Your task to perform on an android device: Open privacy settings Image 0: 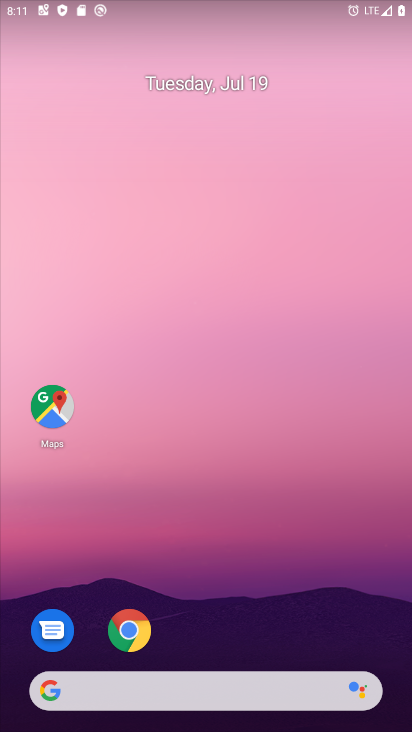
Step 0: drag from (271, 585) to (241, 65)
Your task to perform on an android device: Open privacy settings Image 1: 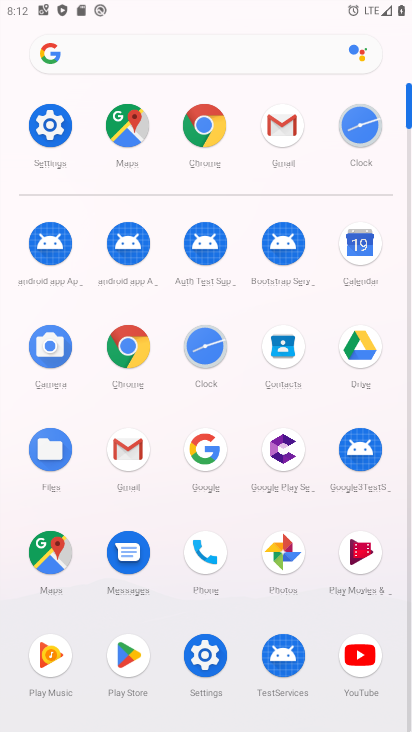
Step 1: click (46, 133)
Your task to perform on an android device: Open privacy settings Image 2: 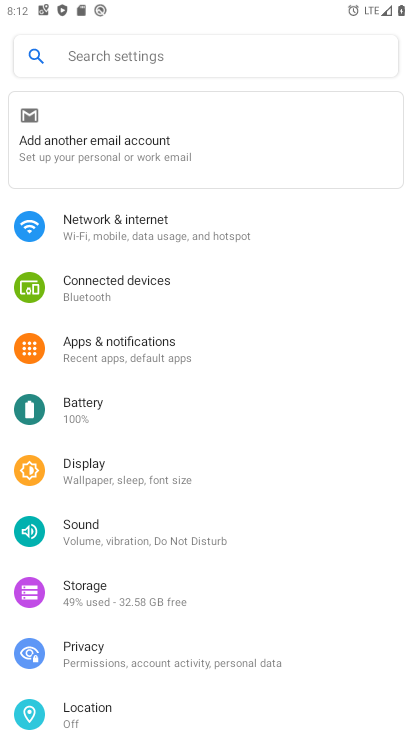
Step 2: drag from (208, 581) to (225, 93)
Your task to perform on an android device: Open privacy settings Image 3: 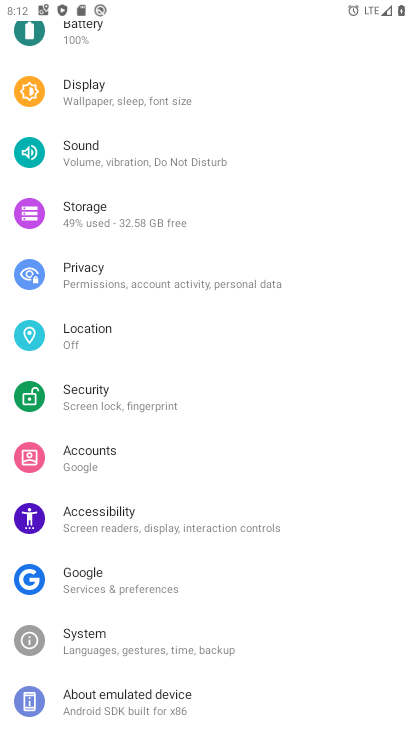
Step 3: click (110, 273)
Your task to perform on an android device: Open privacy settings Image 4: 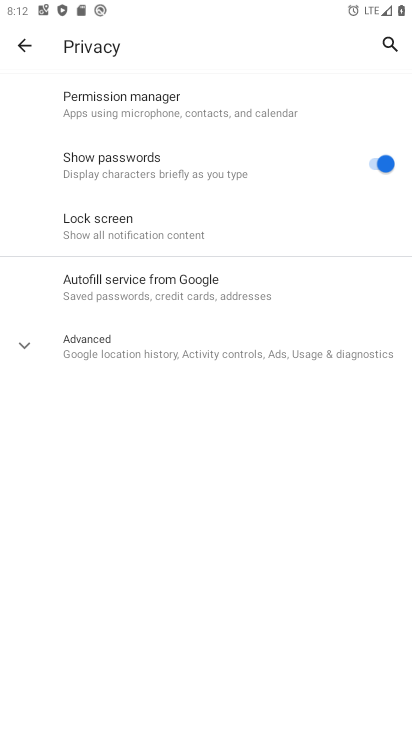
Step 4: task complete